Your task to perform on an android device: toggle location history Image 0: 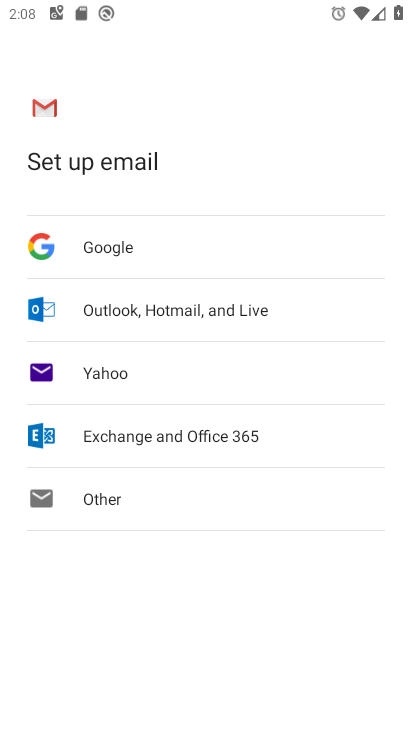
Step 0: press home button
Your task to perform on an android device: toggle location history Image 1: 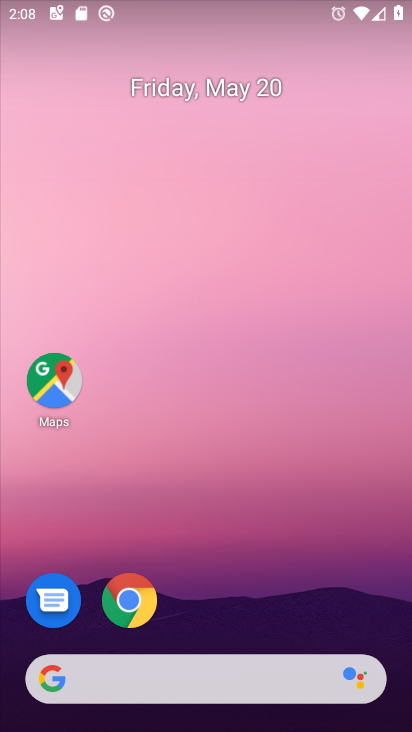
Step 1: drag from (247, 574) to (265, 190)
Your task to perform on an android device: toggle location history Image 2: 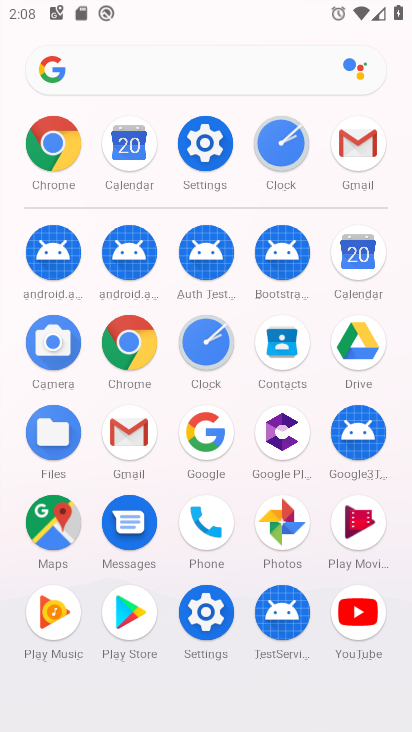
Step 2: click (209, 619)
Your task to perform on an android device: toggle location history Image 3: 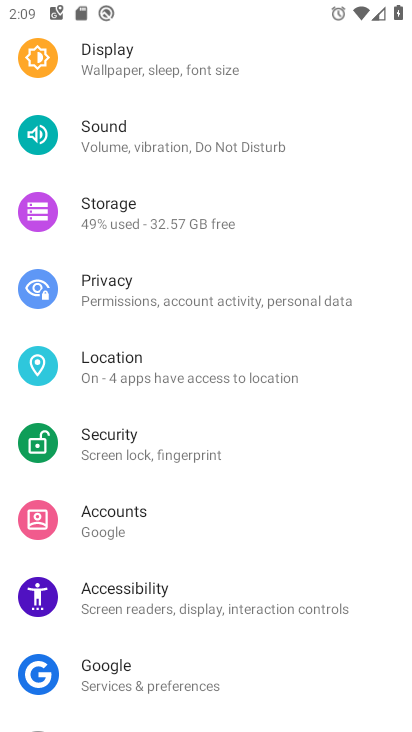
Step 3: press home button
Your task to perform on an android device: toggle location history Image 4: 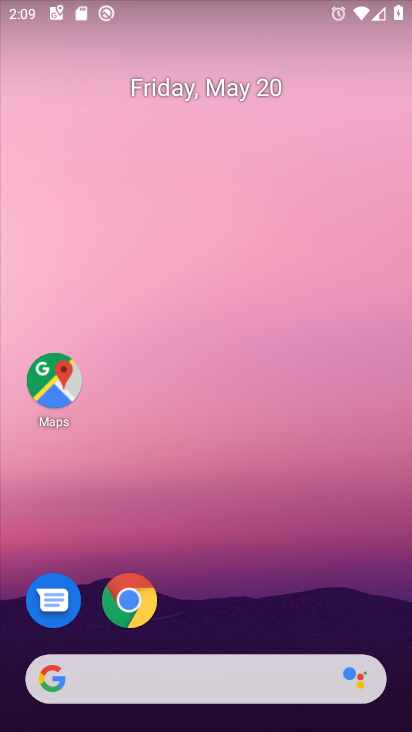
Step 4: drag from (262, 613) to (330, 124)
Your task to perform on an android device: toggle location history Image 5: 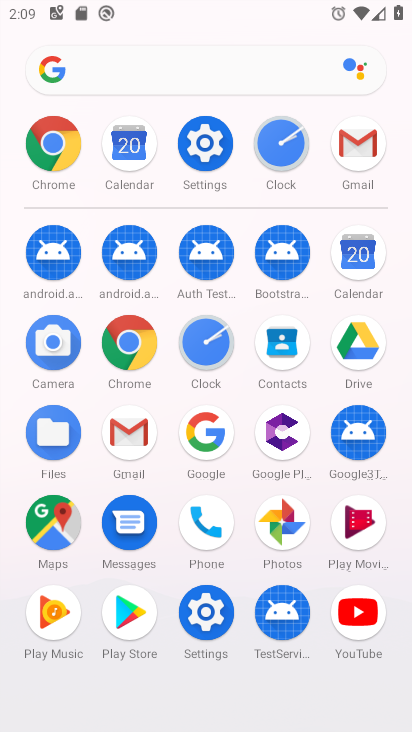
Step 5: click (208, 160)
Your task to perform on an android device: toggle location history Image 6: 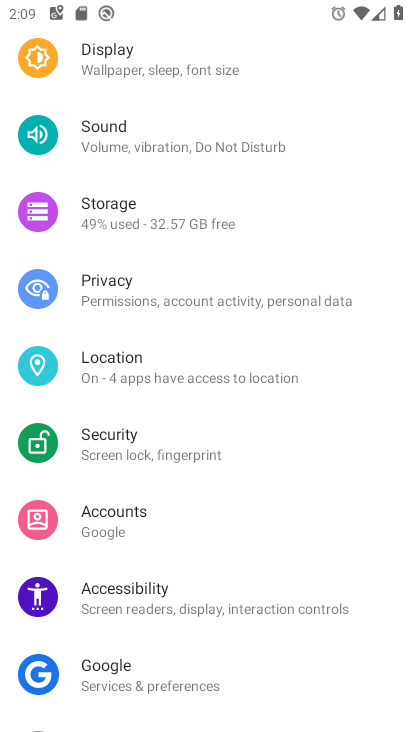
Step 6: click (181, 374)
Your task to perform on an android device: toggle location history Image 7: 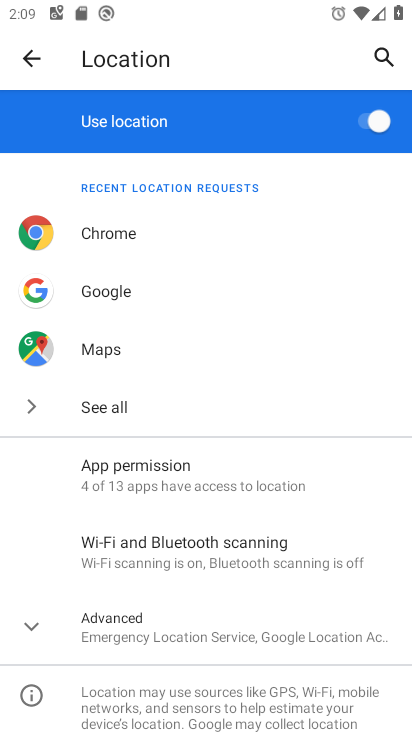
Step 7: click (160, 634)
Your task to perform on an android device: toggle location history Image 8: 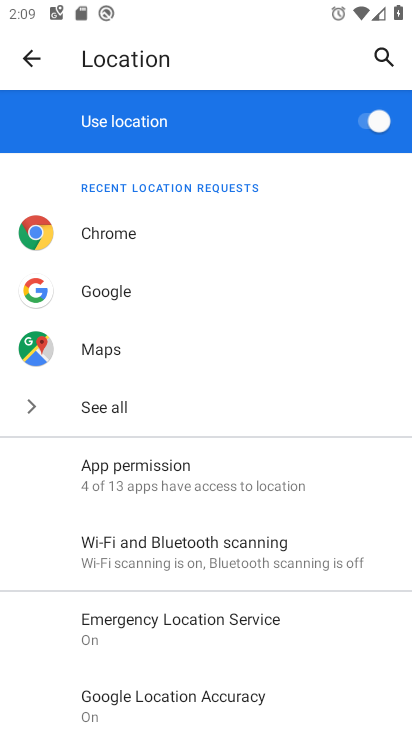
Step 8: drag from (226, 640) to (246, 331)
Your task to perform on an android device: toggle location history Image 9: 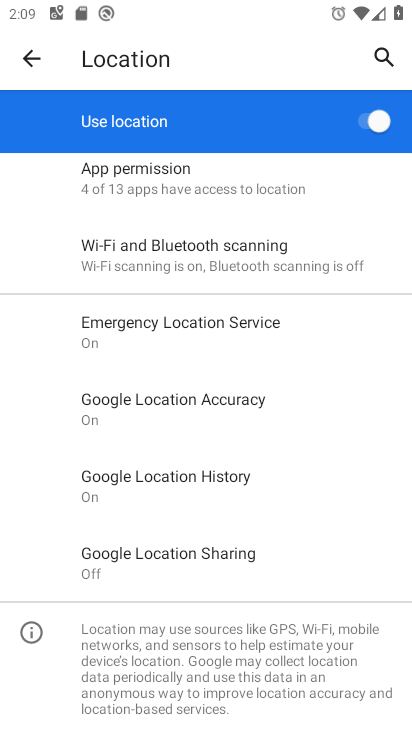
Step 9: click (183, 486)
Your task to perform on an android device: toggle location history Image 10: 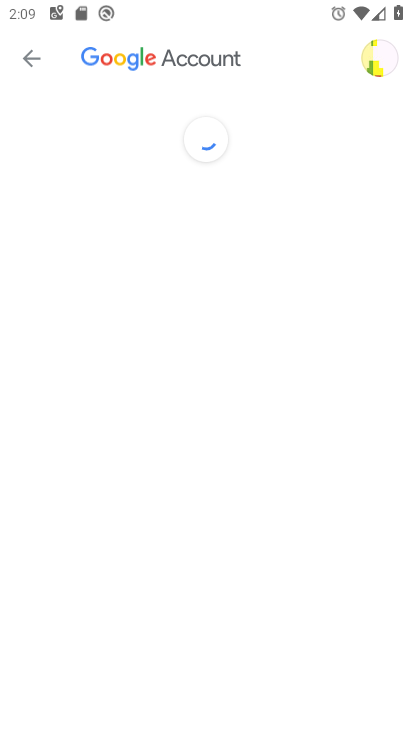
Step 10: drag from (288, 573) to (306, 272)
Your task to perform on an android device: toggle location history Image 11: 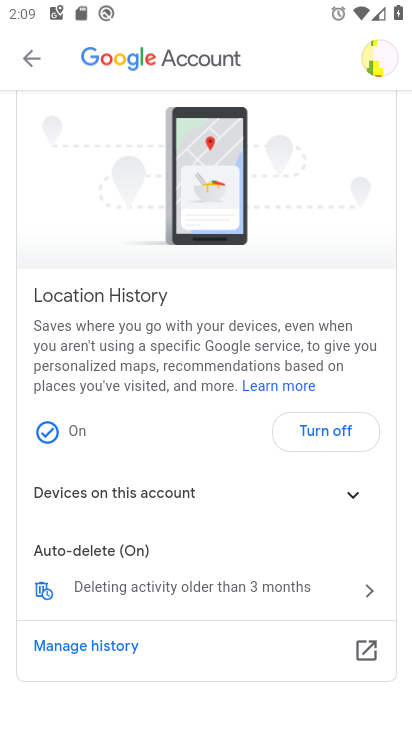
Step 11: click (305, 439)
Your task to perform on an android device: toggle location history Image 12: 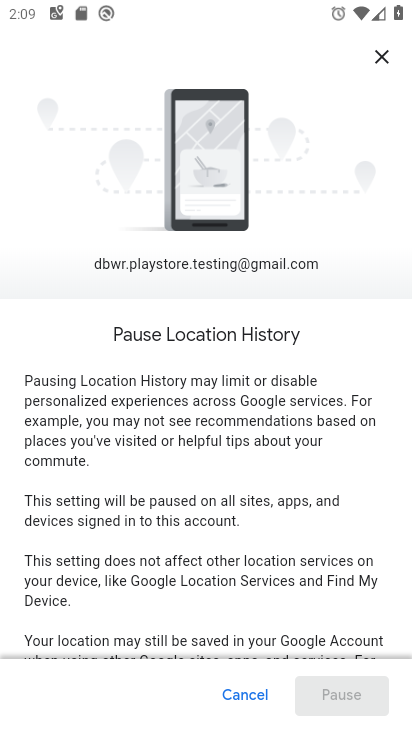
Step 12: drag from (275, 647) to (300, 199)
Your task to perform on an android device: toggle location history Image 13: 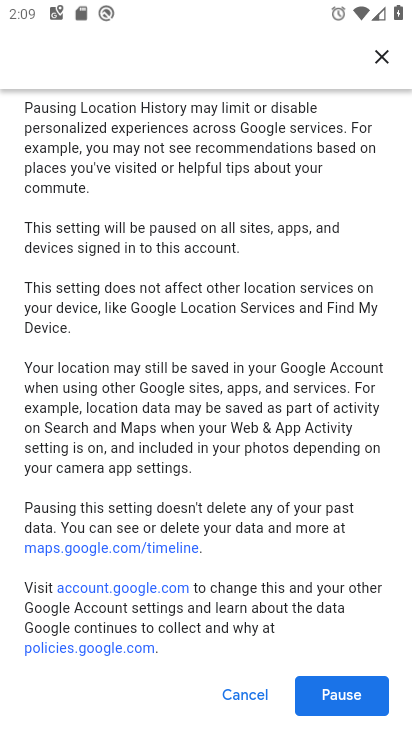
Step 13: click (367, 699)
Your task to perform on an android device: toggle location history Image 14: 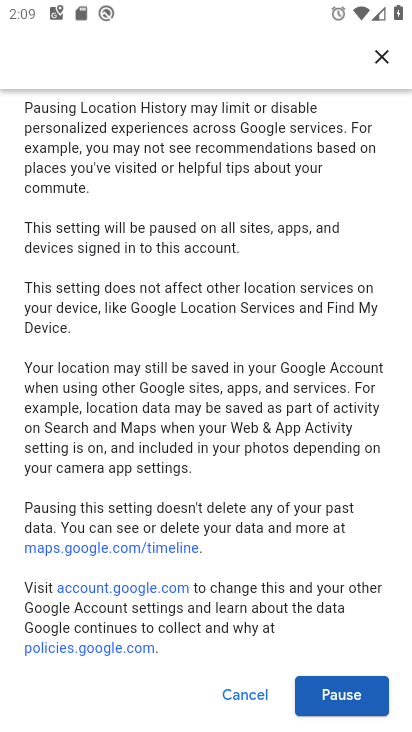
Step 14: click (351, 704)
Your task to perform on an android device: toggle location history Image 15: 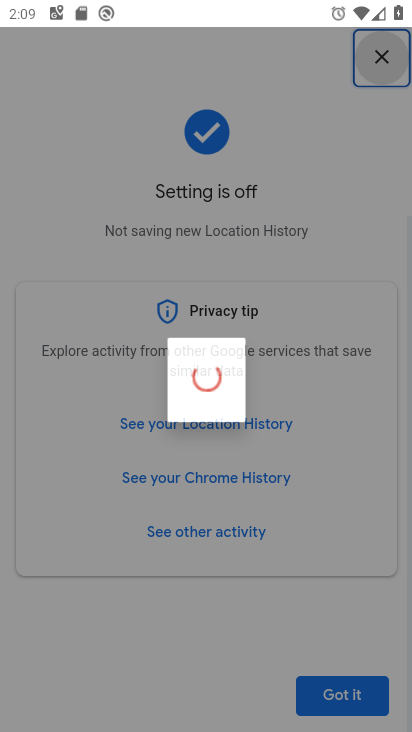
Step 15: click (364, 685)
Your task to perform on an android device: toggle location history Image 16: 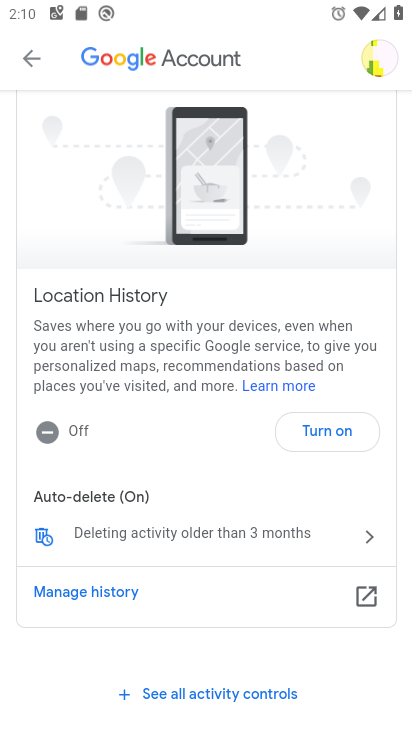
Step 16: task complete